Your task to perform on an android device: turn off translation in the chrome app Image 0: 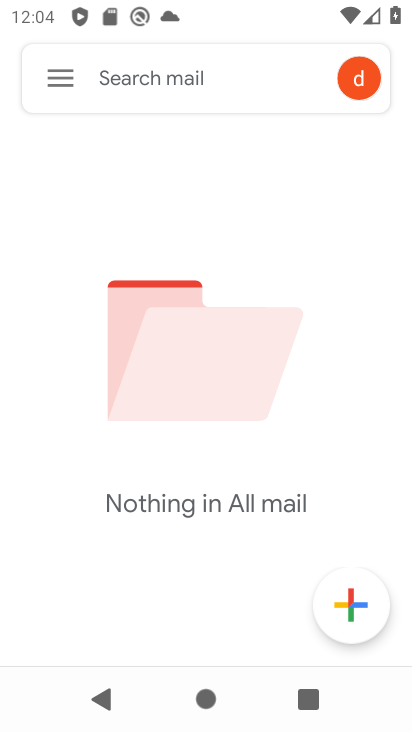
Step 0: press home button
Your task to perform on an android device: turn off translation in the chrome app Image 1: 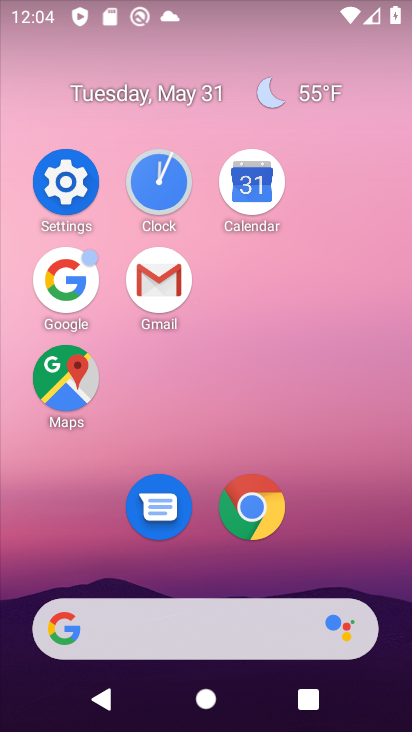
Step 1: click (272, 505)
Your task to perform on an android device: turn off translation in the chrome app Image 2: 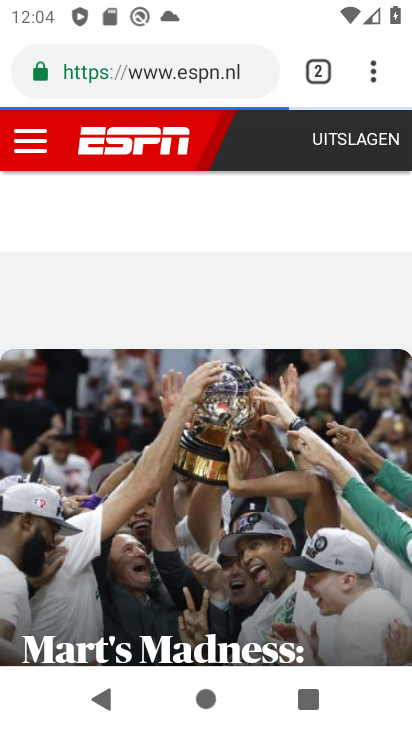
Step 2: click (369, 69)
Your task to perform on an android device: turn off translation in the chrome app Image 3: 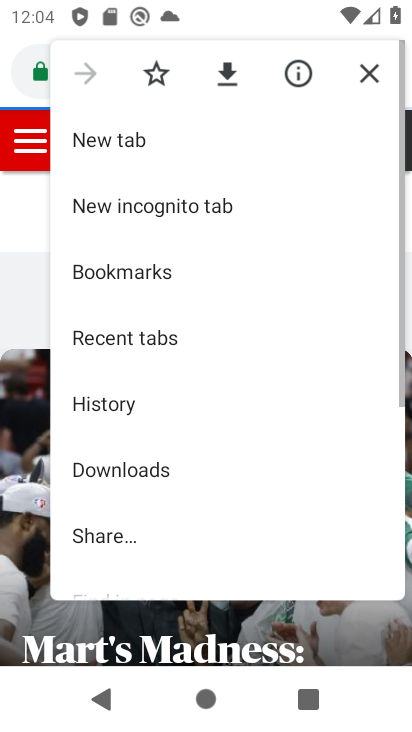
Step 3: drag from (269, 566) to (253, 227)
Your task to perform on an android device: turn off translation in the chrome app Image 4: 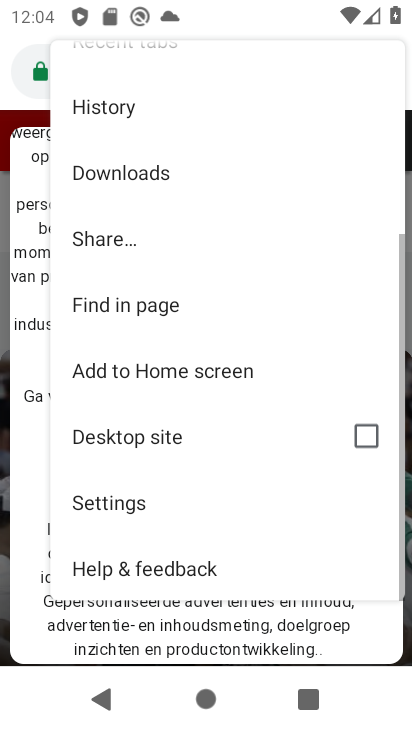
Step 4: click (232, 501)
Your task to perform on an android device: turn off translation in the chrome app Image 5: 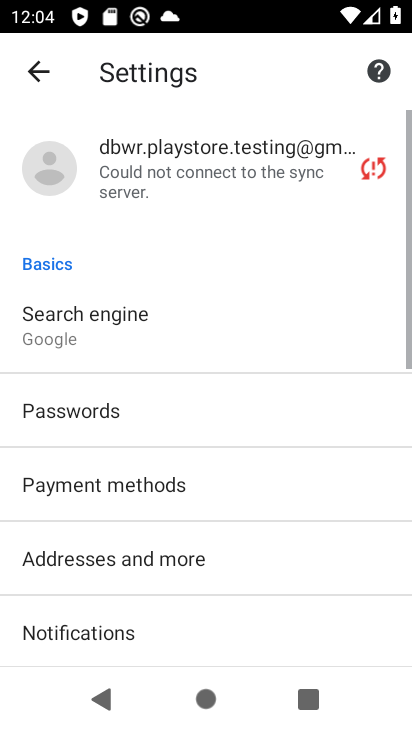
Step 5: drag from (232, 501) to (246, 162)
Your task to perform on an android device: turn off translation in the chrome app Image 6: 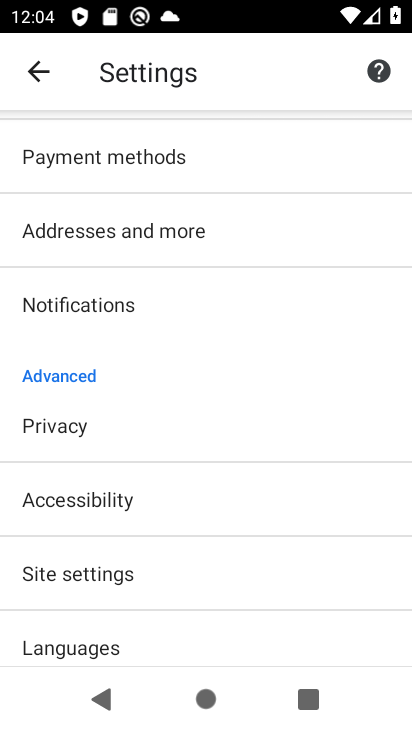
Step 6: click (165, 623)
Your task to perform on an android device: turn off translation in the chrome app Image 7: 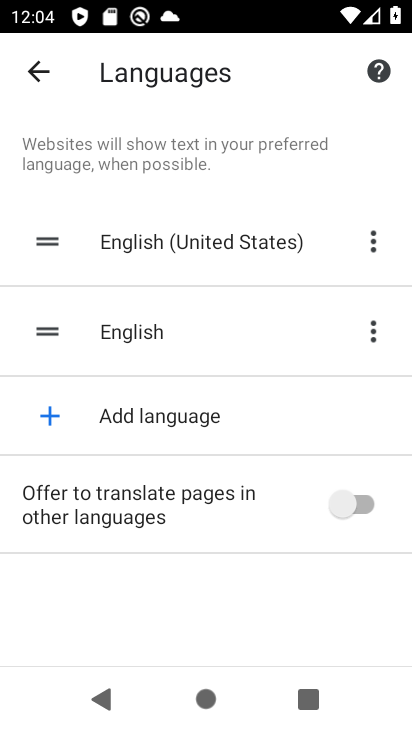
Step 7: task complete